Your task to perform on an android device: create a new album in the google photos Image 0: 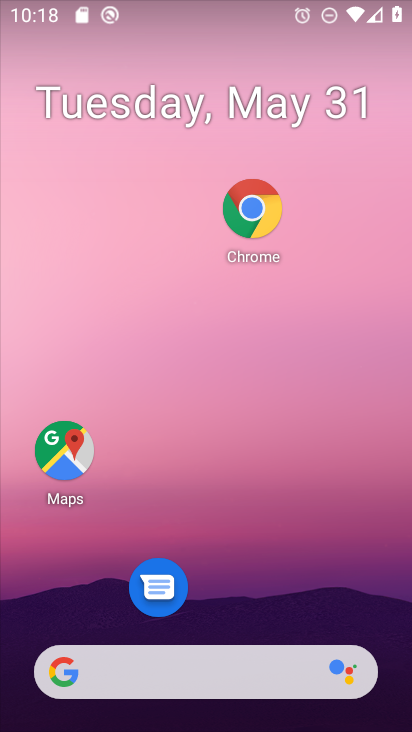
Step 0: press home button
Your task to perform on an android device: create a new album in the google photos Image 1: 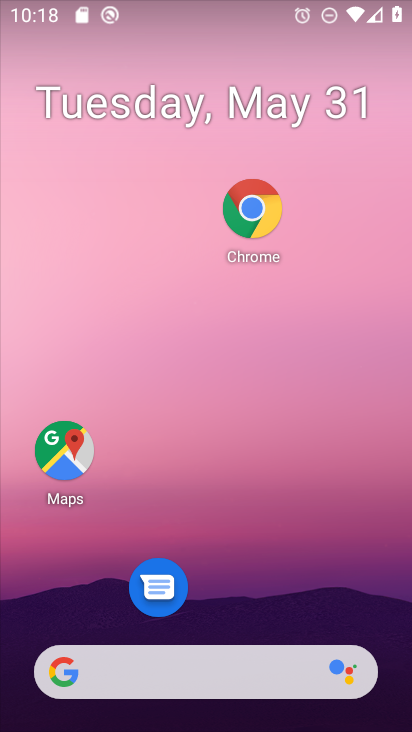
Step 1: drag from (212, 622) to (223, 72)
Your task to perform on an android device: create a new album in the google photos Image 2: 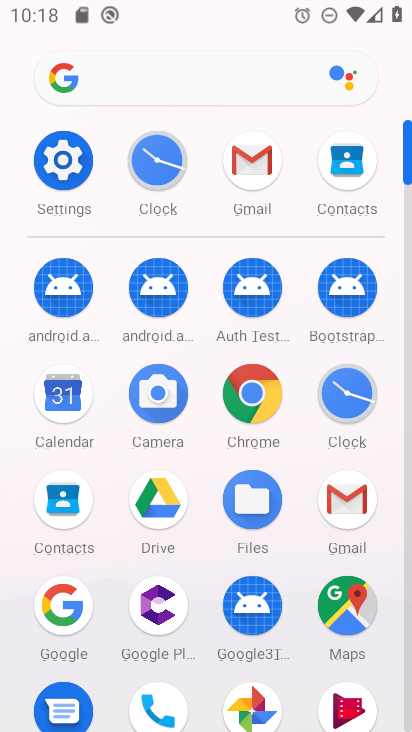
Step 2: click (251, 693)
Your task to perform on an android device: create a new album in the google photos Image 3: 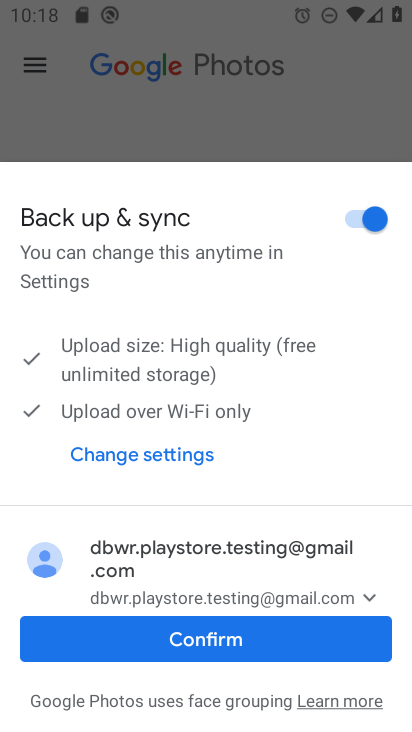
Step 3: click (209, 635)
Your task to perform on an android device: create a new album in the google photos Image 4: 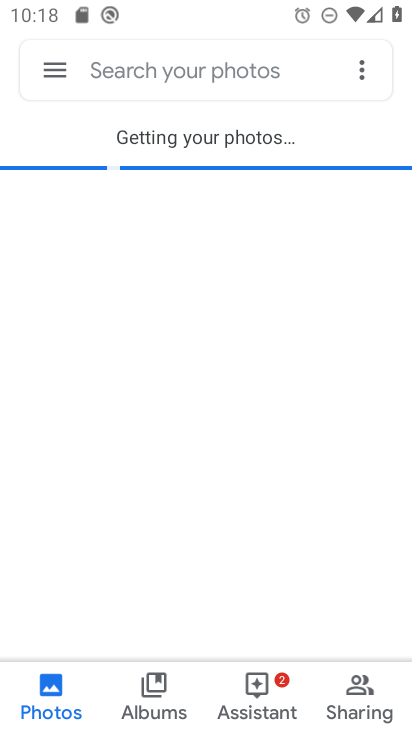
Step 4: click (157, 685)
Your task to perform on an android device: create a new album in the google photos Image 5: 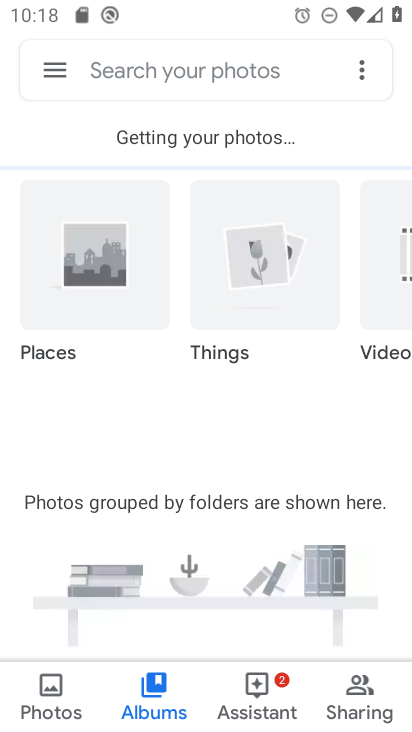
Step 5: click (361, 59)
Your task to perform on an android device: create a new album in the google photos Image 6: 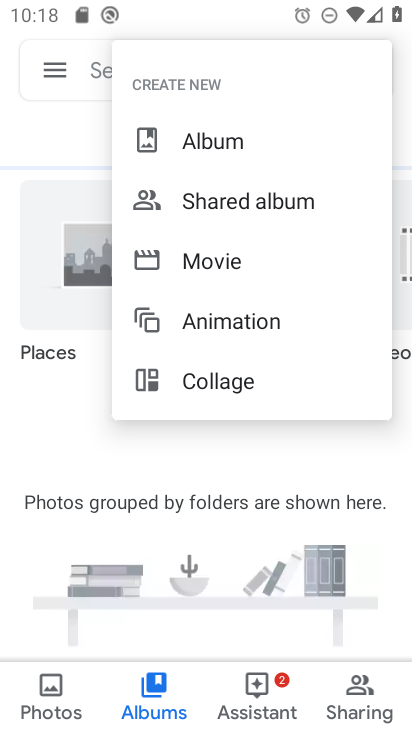
Step 6: click (250, 135)
Your task to perform on an android device: create a new album in the google photos Image 7: 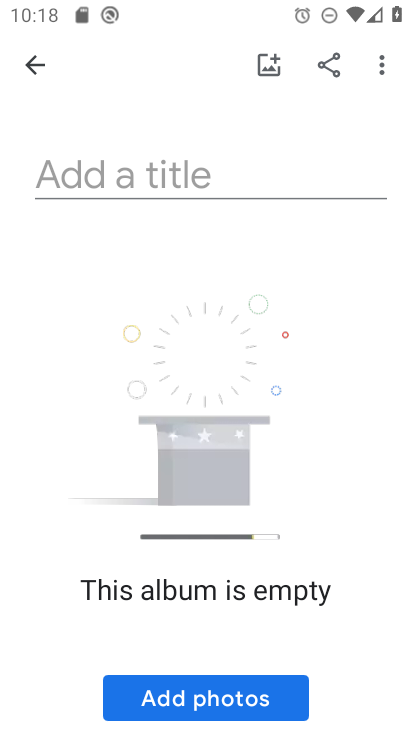
Step 7: click (203, 692)
Your task to perform on an android device: create a new album in the google photos Image 8: 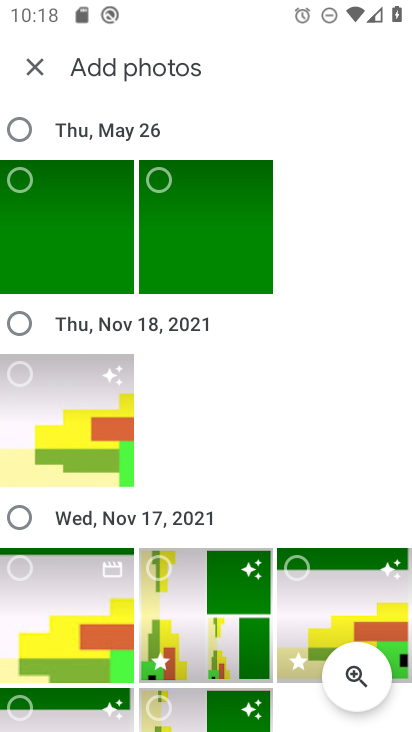
Step 8: click (15, 168)
Your task to perform on an android device: create a new album in the google photos Image 9: 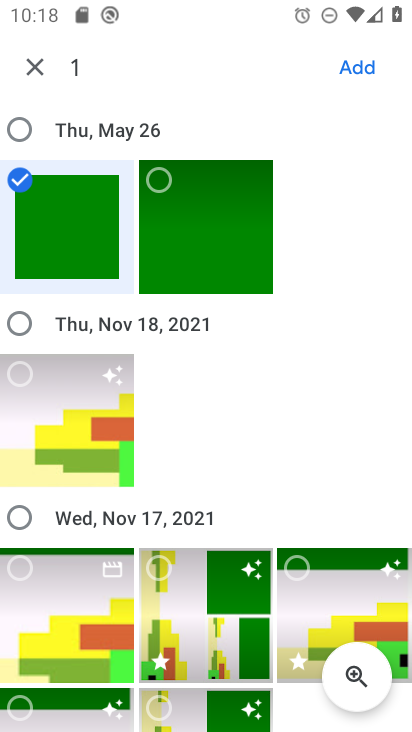
Step 9: click (17, 376)
Your task to perform on an android device: create a new album in the google photos Image 10: 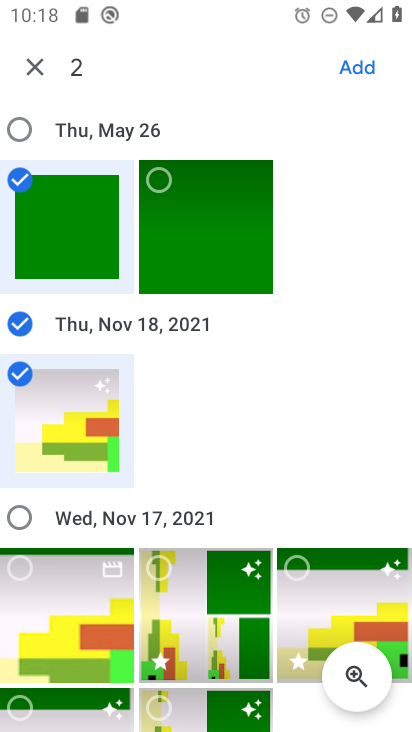
Step 10: click (292, 565)
Your task to perform on an android device: create a new album in the google photos Image 11: 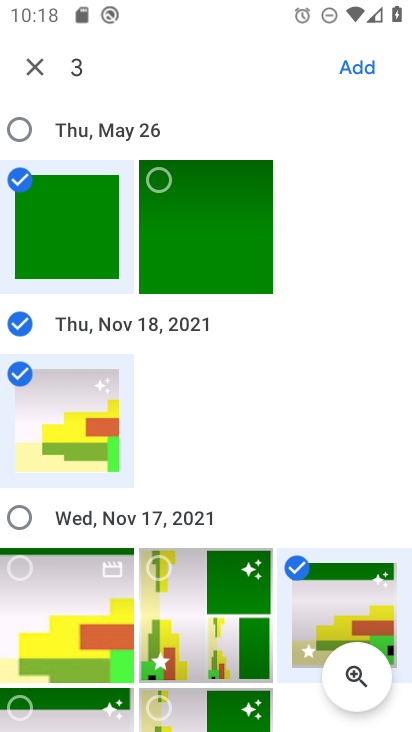
Step 11: click (192, 592)
Your task to perform on an android device: create a new album in the google photos Image 12: 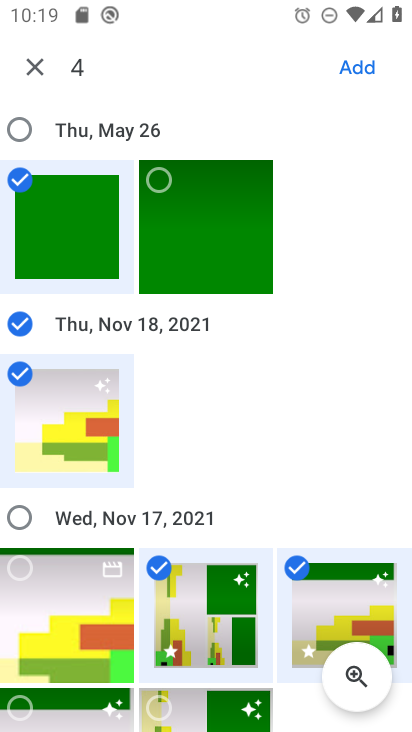
Step 12: click (360, 54)
Your task to perform on an android device: create a new album in the google photos Image 13: 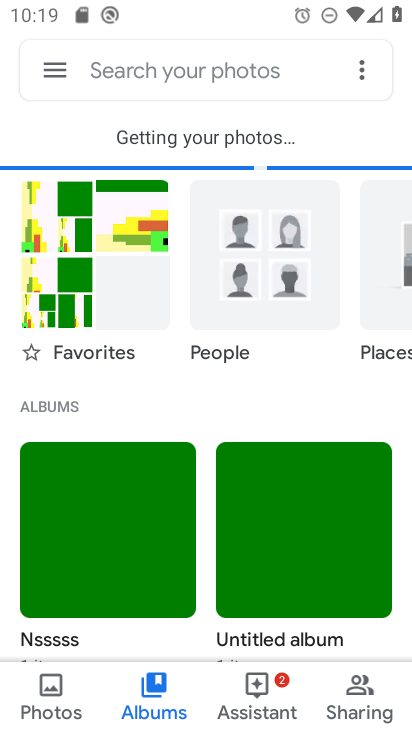
Step 13: click (357, 60)
Your task to perform on an android device: create a new album in the google photos Image 14: 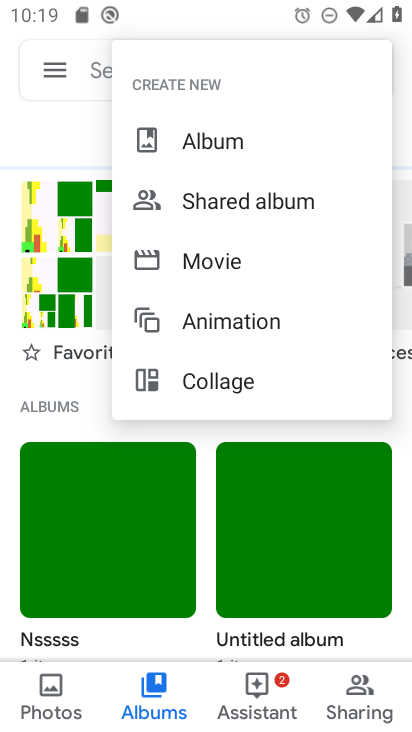
Step 14: click (247, 131)
Your task to perform on an android device: create a new album in the google photos Image 15: 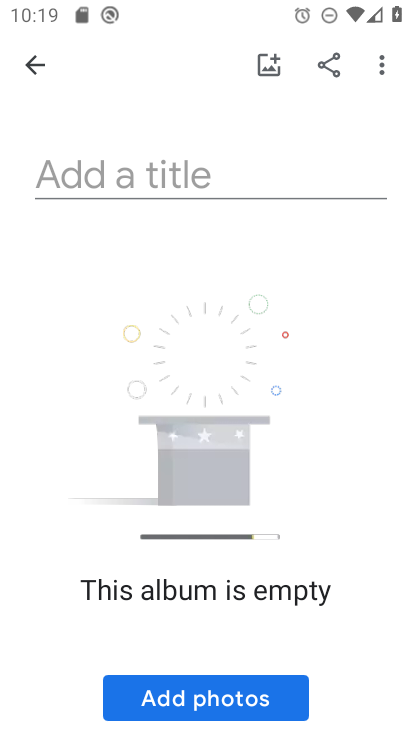
Step 15: click (215, 709)
Your task to perform on an android device: create a new album in the google photos Image 16: 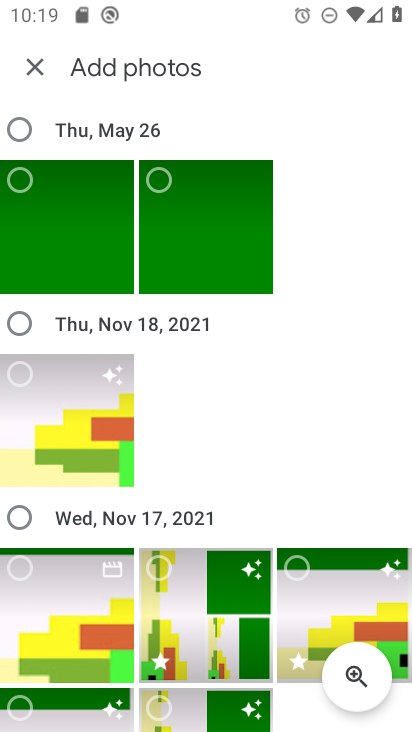
Step 16: click (176, 182)
Your task to perform on an android device: create a new album in the google photos Image 17: 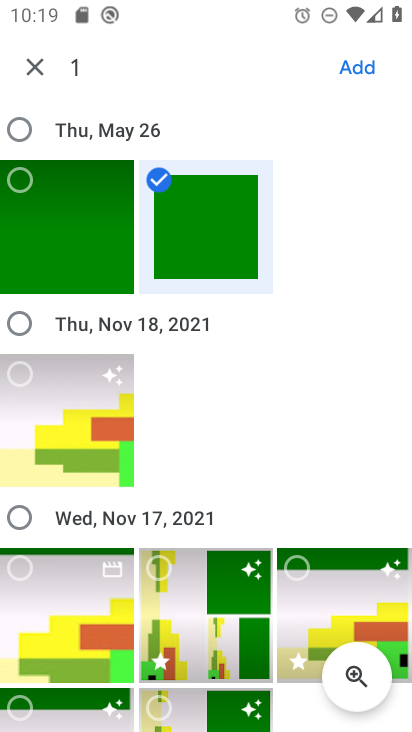
Step 17: click (88, 379)
Your task to perform on an android device: create a new album in the google photos Image 18: 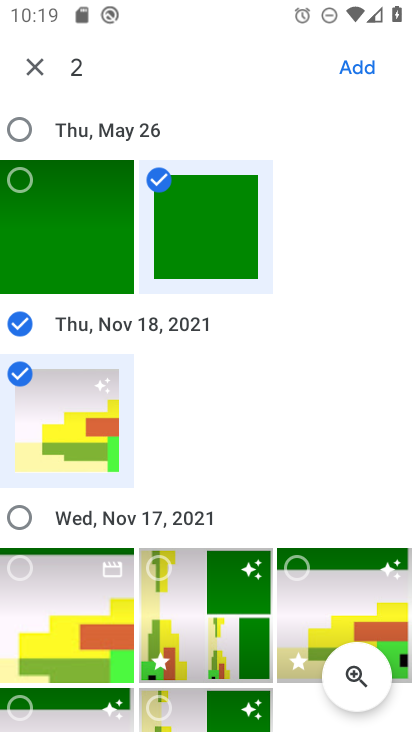
Step 18: click (183, 573)
Your task to perform on an android device: create a new album in the google photos Image 19: 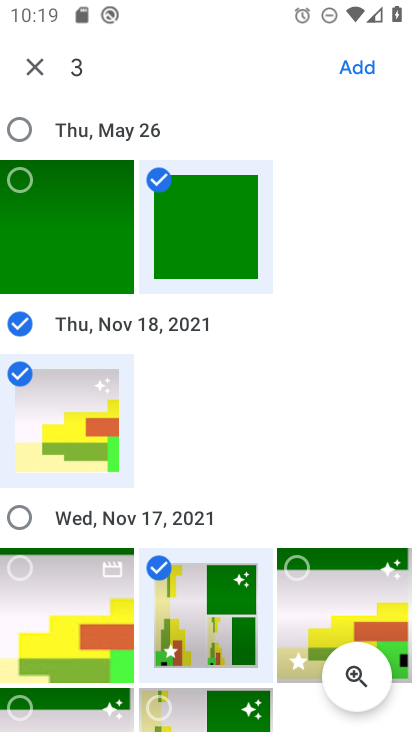
Step 19: click (285, 608)
Your task to perform on an android device: create a new album in the google photos Image 20: 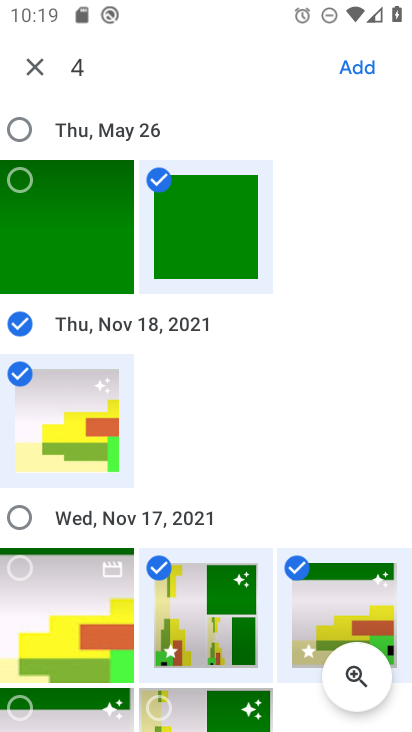
Step 20: click (362, 65)
Your task to perform on an android device: create a new album in the google photos Image 21: 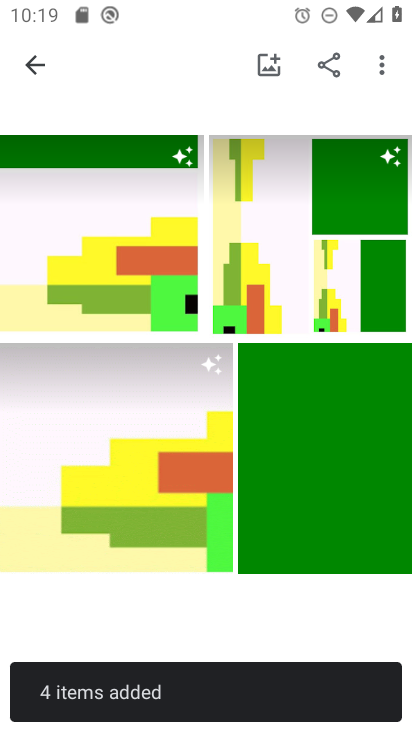
Step 21: task complete